Your task to perform on an android device: turn off priority inbox in the gmail app Image 0: 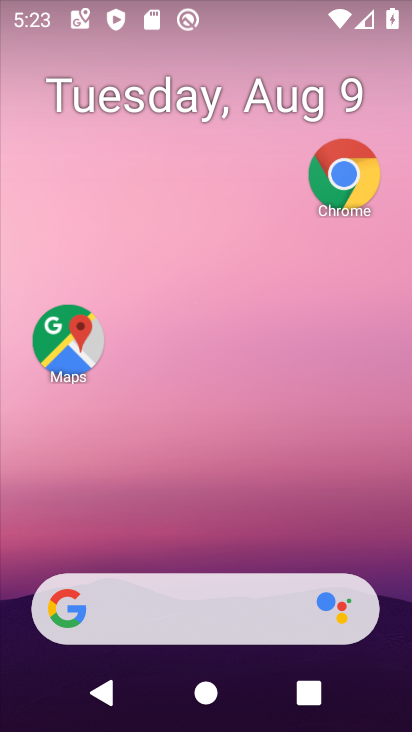
Step 0: drag from (256, 525) to (242, 240)
Your task to perform on an android device: turn off priority inbox in the gmail app Image 1: 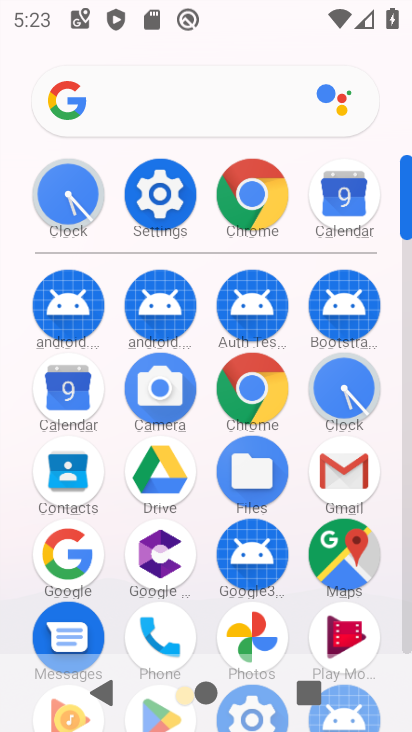
Step 1: drag from (200, 633) to (238, 362)
Your task to perform on an android device: turn off priority inbox in the gmail app Image 2: 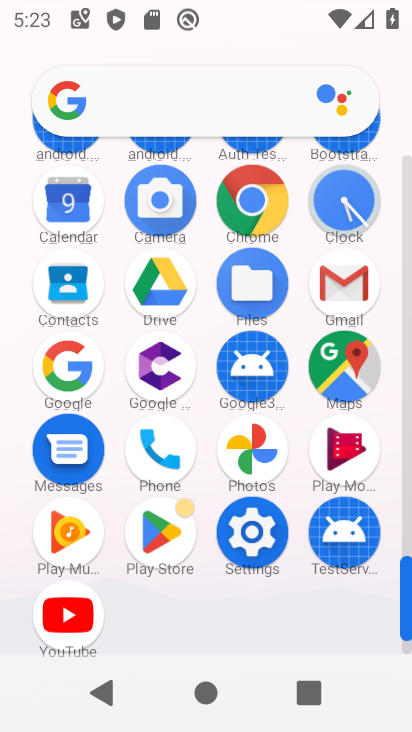
Step 2: click (337, 286)
Your task to perform on an android device: turn off priority inbox in the gmail app Image 3: 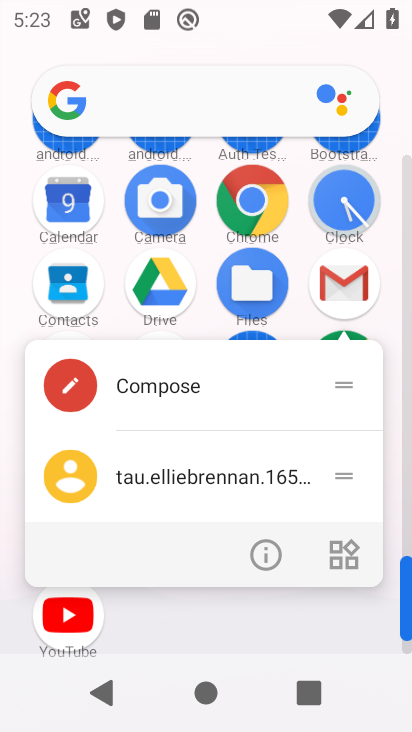
Step 3: click (267, 556)
Your task to perform on an android device: turn off priority inbox in the gmail app Image 4: 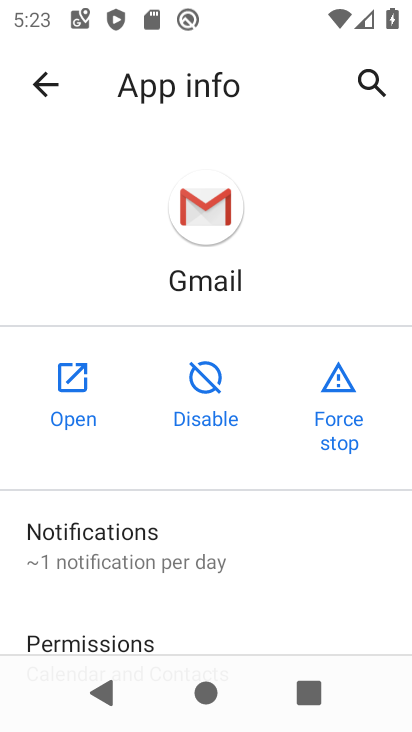
Step 4: click (65, 389)
Your task to perform on an android device: turn off priority inbox in the gmail app Image 5: 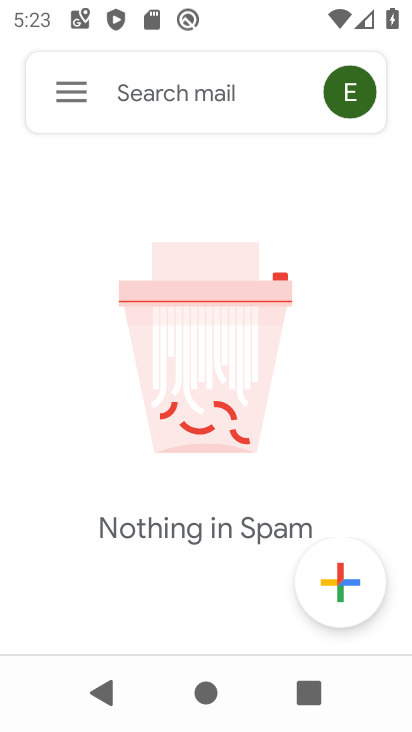
Step 5: drag from (188, 551) to (287, 182)
Your task to perform on an android device: turn off priority inbox in the gmail app Image 6: 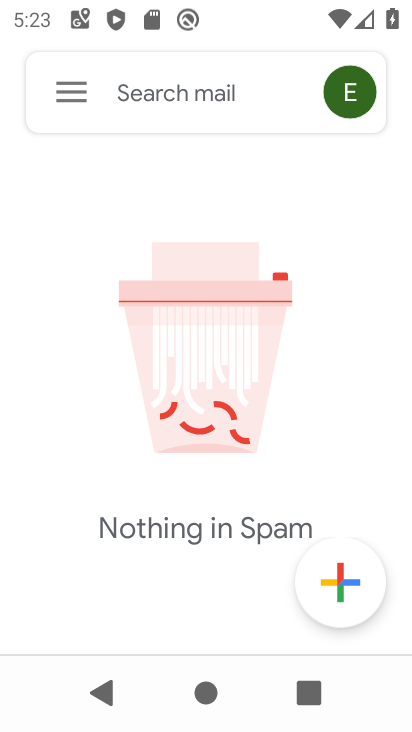
Step 6: drag from (203, 499) to (206, 319)
Your task to perform on an android device: turn off priority inbox in the gmail app Image 7: 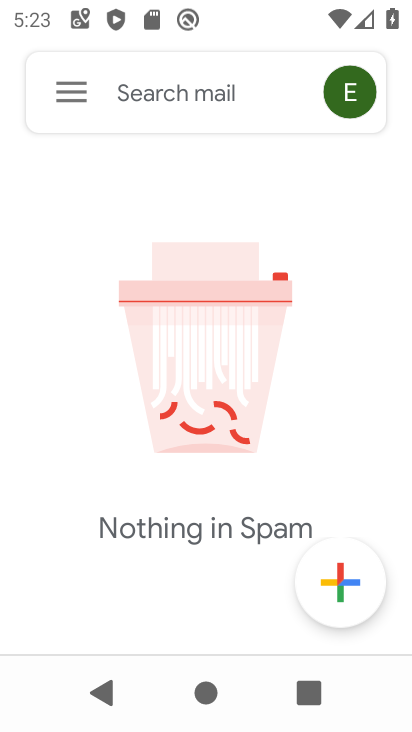
Step 7: drag from (199, 515) to (258, 209)
Your task to perform on an android device: turn off priority inbox in the gmail app Image 8: 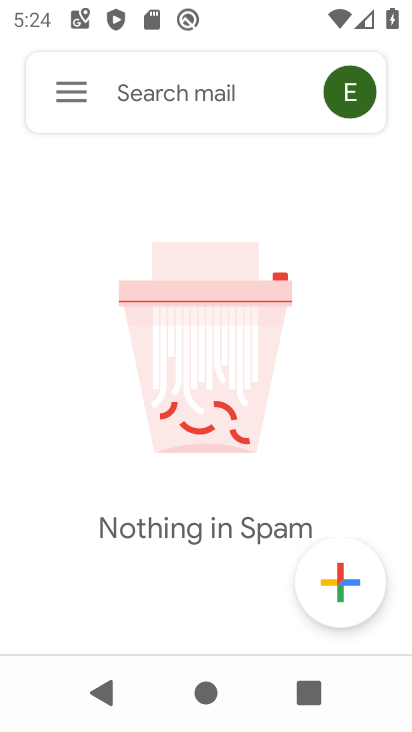
Step 8: drag from (172, 539) to (227, 363)
Your task to perform on an android device: turn off priority inbox in the gmail app Image 9: 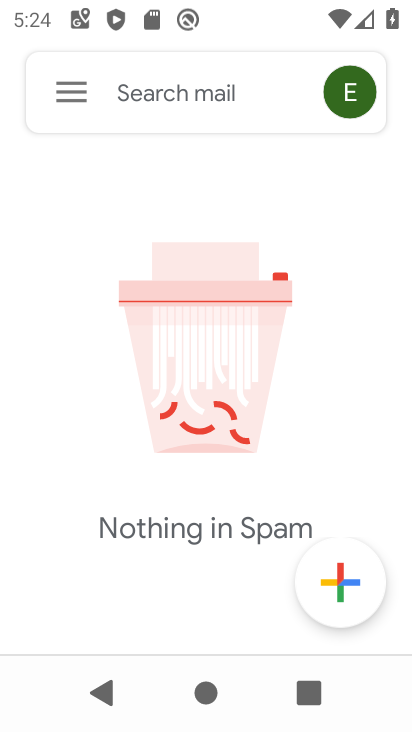
Step 9: drag from (215, 532) to (227, 271)
Your task to perform on an android device: turn off priority inbox in the gmail app Image 10: 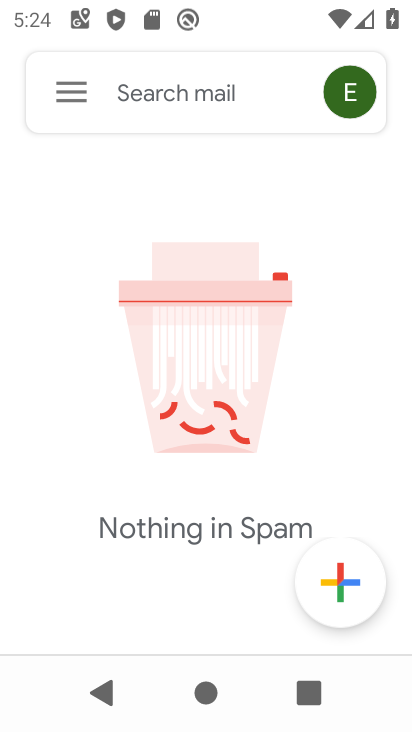
Step 10: click (81, 87)
Your task to perform on an android device: turn off priority inbox in the gmail app Image 11: 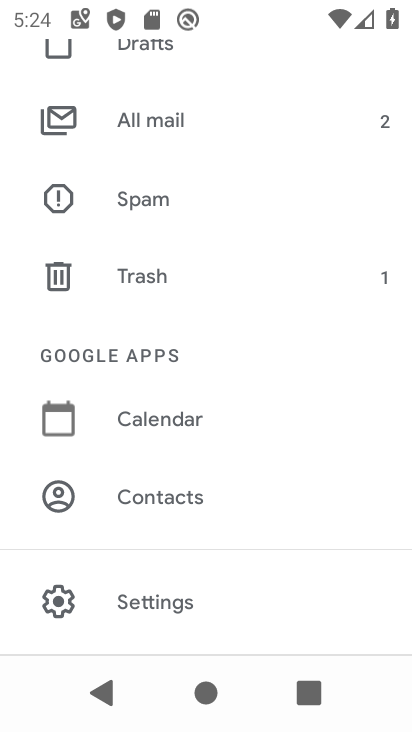
Step 11: click (111, 203)
Your task to perform on an android device: turn off priority inbox in the gmail app Image 12: 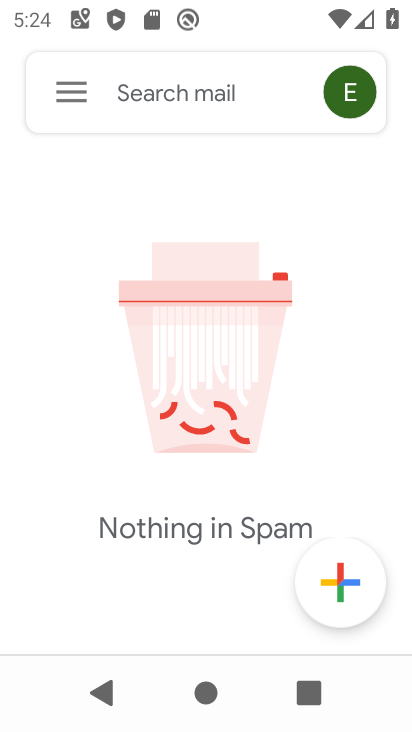
Step 12: drag from (259, 548) to (254, 273)
Your task to perform on an android device: turn off priority inbox in the gmail app Image 13: 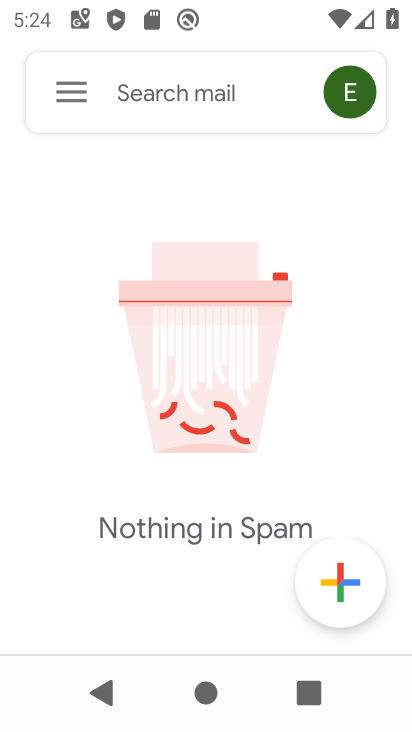
Step 13: drag from (216, 182) to (313, 463)
Your task to perform on an android device: turn off priority inbox in the gmail app Image 14: 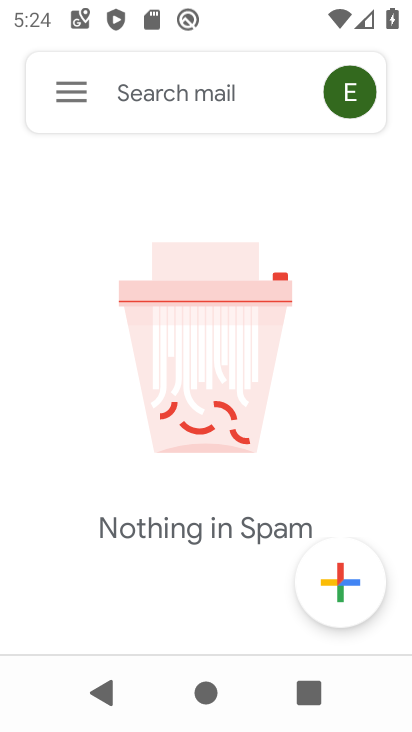
Step 14: drag from (220, 496) to (230, 234)
Your task to perform on an android device: turn off priority inbox in the gmail app Image 15: 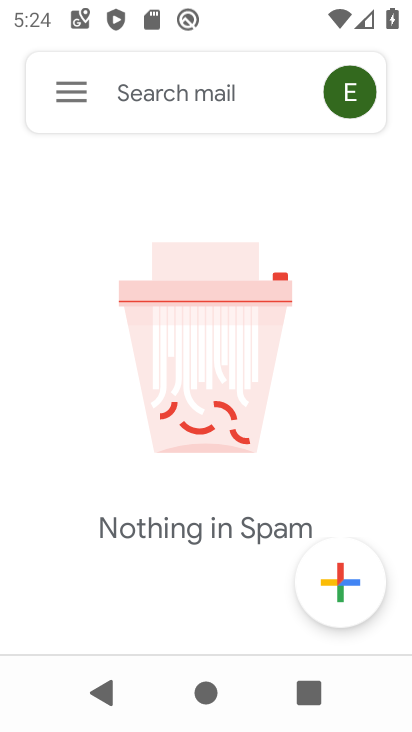
Step 15: drag from (168, 502) to (195, 314)
Your task to perform on an android device: turn off priority inbox in the gmail app Image 16: 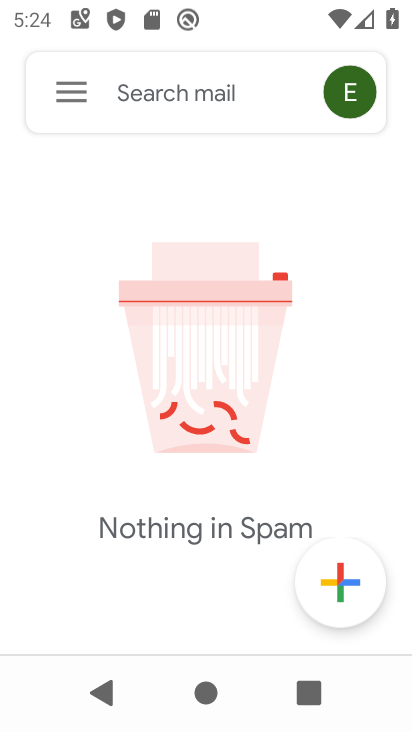
Step 16: drag from (192, 565) to (216, 334)
Your task to perform on an android device: turn off priority inbox in the gmail app Image 17: 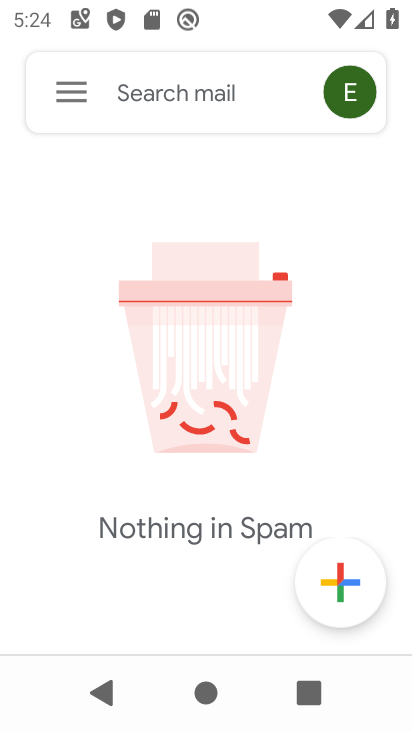
Step 17: drag from (227, 470) to (231, 182)
Your task to perform on an android device: turn off priority inbox in the gmail app Image 18: 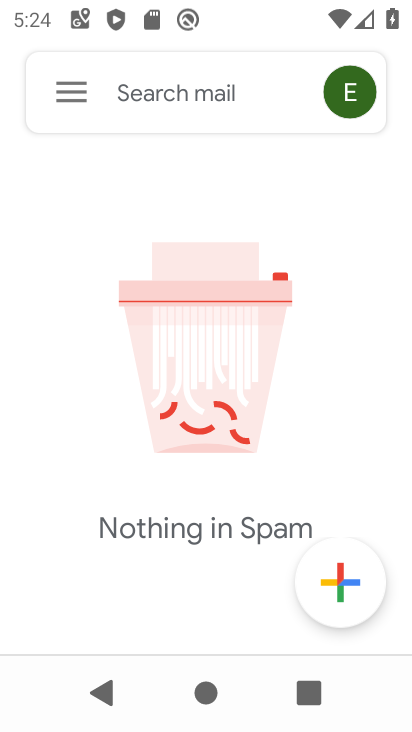
Step 18: drag from (227, 173) to (246, 507)
Your task to perform on an android device: turn off priority inbox in the gmail app Image 19: 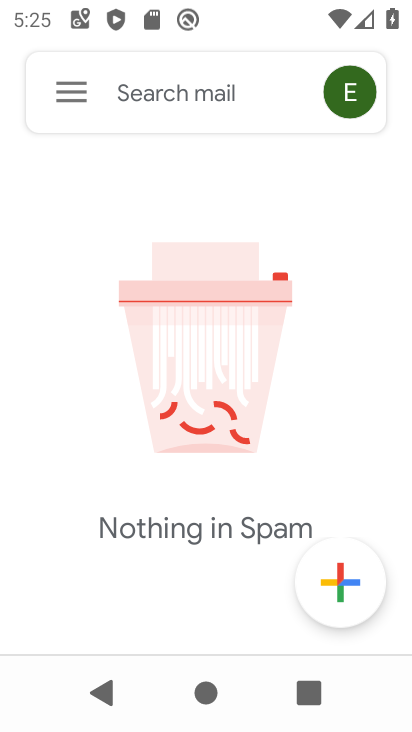
Step 19: drag from (214, 461) to (230, 252)
Your task to perform on an android device: turn off priority inbox in the gmail app Image 20: 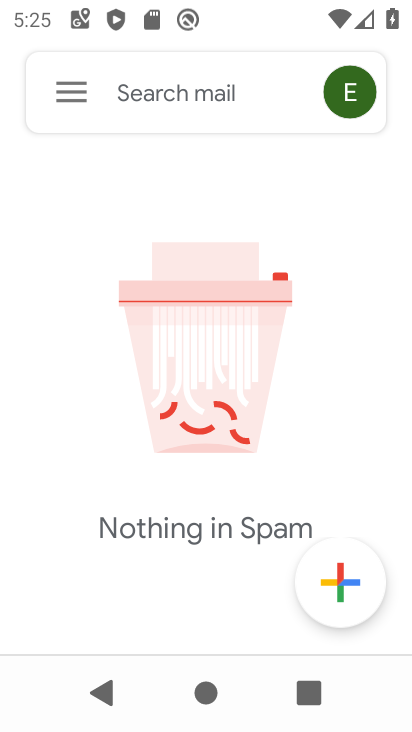
Step 20: drag from (195, 186) to (224, 477)
Your task to perform on an android device: turn off priority inbox in the gmail app Image 21: 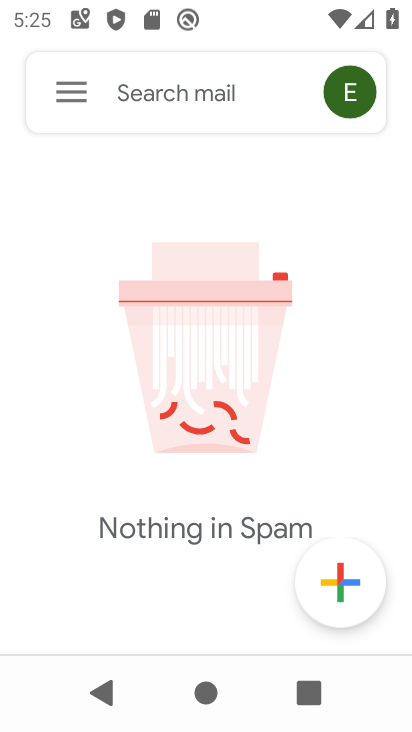
Step 21: drag from (198, 196) to (227, 528)
Your task to perform on an android device: turn off priority inbox in the gmail app Image 22: 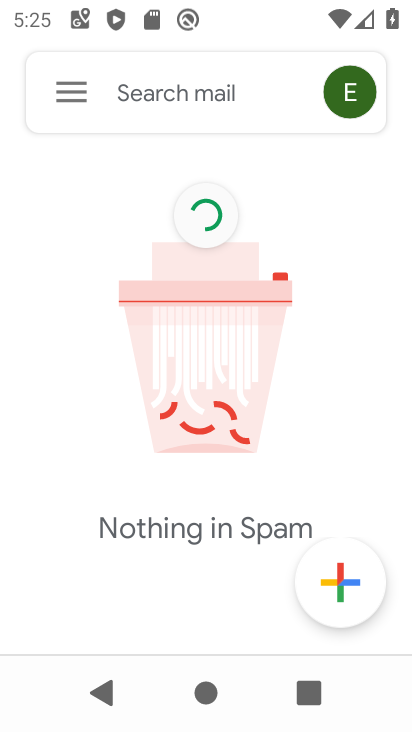
Step 22: drag from (211, 478) to (230, 238)
Your task to perform on an android device: turn off priority inbox in the gmail app Image 23: 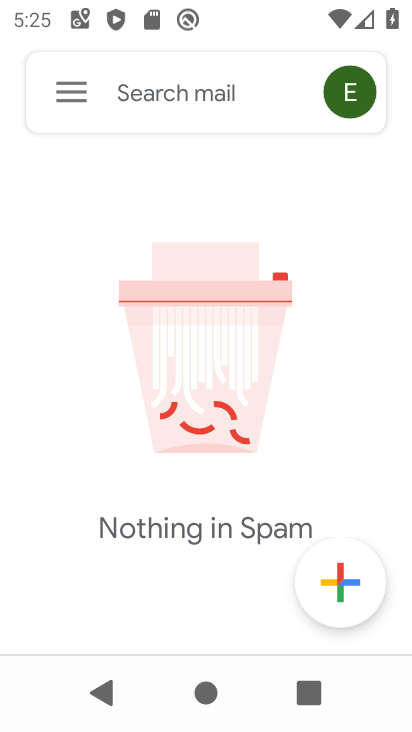
Step 23: drag from (222, 197) to (249, 570)
Your task to perform on an android device: turn off priority inbox in the gmail app Image 24: 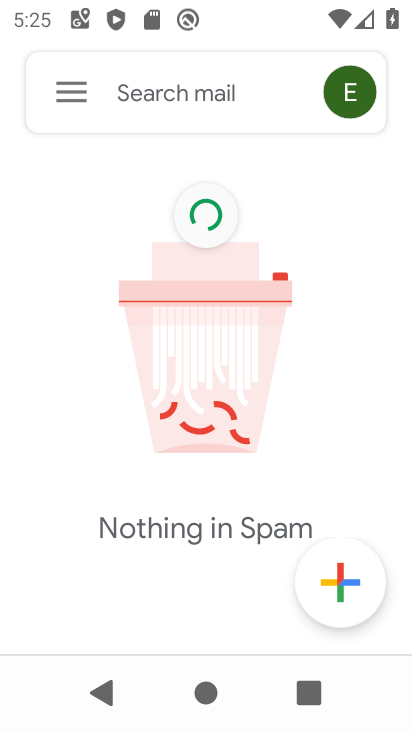
Step 24: drag from (231, 535) to (267, 178)
Your task to perform on an android device: turn off priority inbox in the gmail app Image 25: 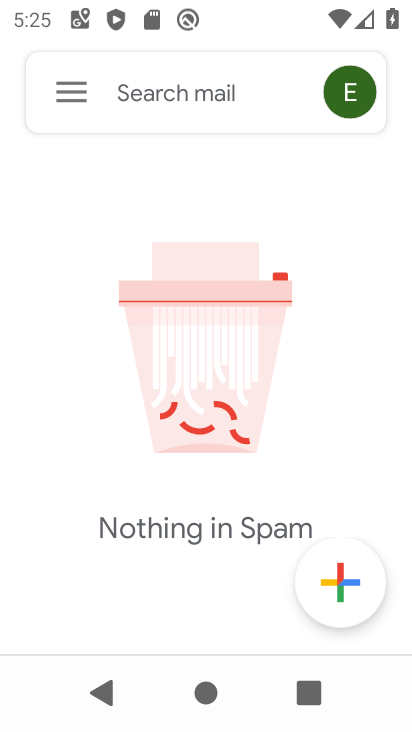
Step 25: click (58, 91)
Your task to perform on an android device: turn off priority inbox in the gmail app Image 26: 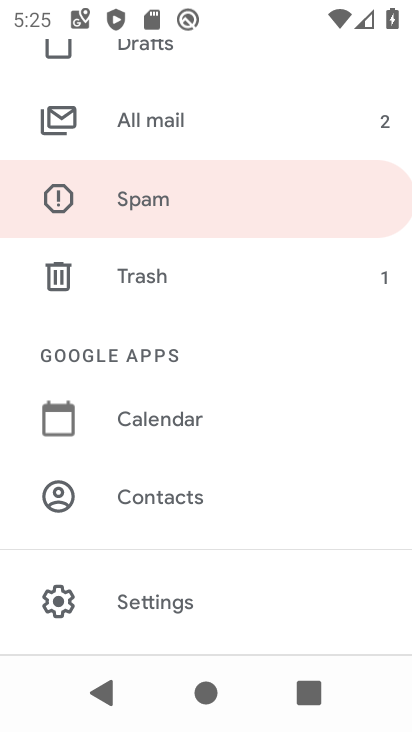
Step 26: drag from (171, 571) to (221, 129)
Your task to perform on an android device: turn off priority inbox in the gmail app Image 27: 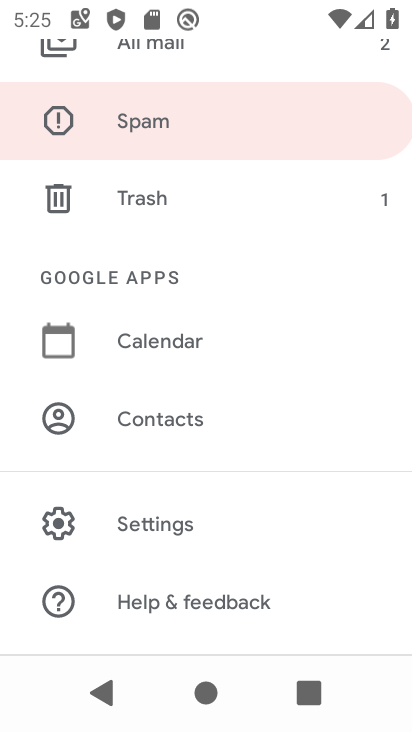
Step 27: click (203, 519)
Your task to perform on an android device: turn off priority inbox in the gmail app Image 28: 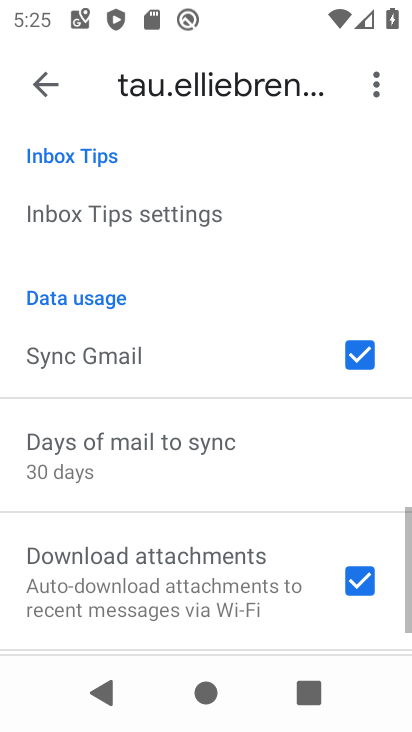
Step 28: drag from (230, 534) to (249, 216)
Your task to perform on an android device: turn off priority inbox in the gmail app Image 29: 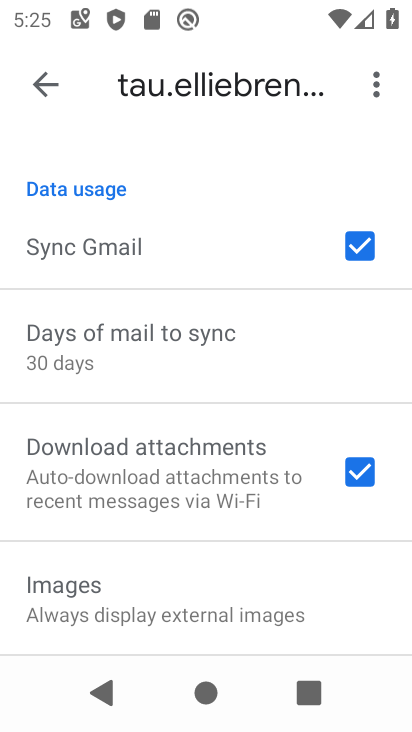
Step 29: drag from (210, 506) to (217, 252)
Your task to perform on an android device: turn off priority inbox in the gmail app Image 30: 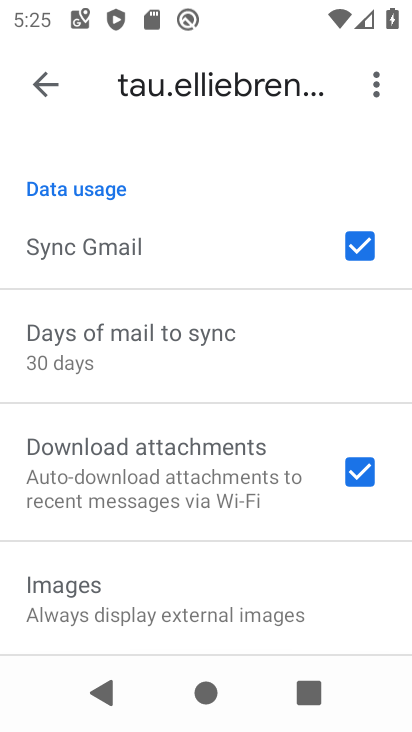
Step 30: drag from (222, 216) to (254, 538)
Your task to perform on an android device: turn off priority inbox in the gmail app Image 31: 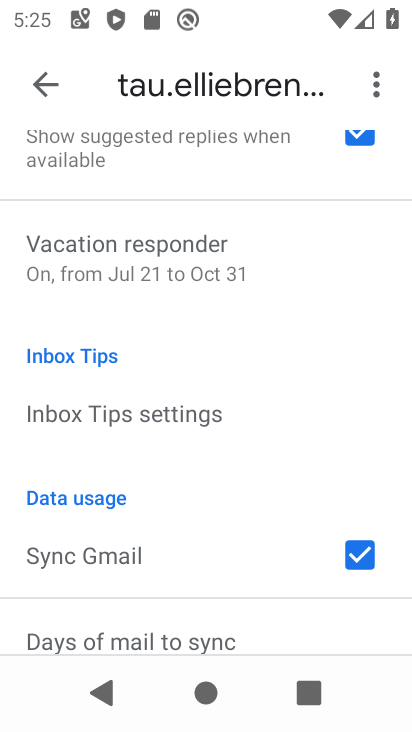
Step 31: drag from (224, 569) to (251, 201)
Your task to perform on an android device: turn off priority inbox in the gmail app Image 32: 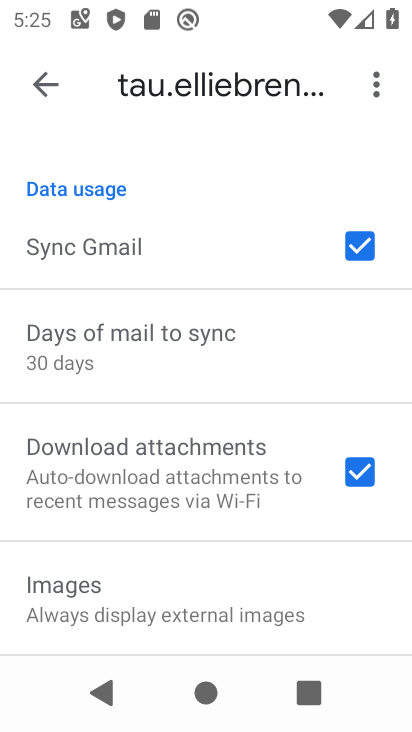
Step 32: drag from (214, 484) to (251, 218)
Your task to perform on an android device: turn off priority inbox in the gmail app Image 33: 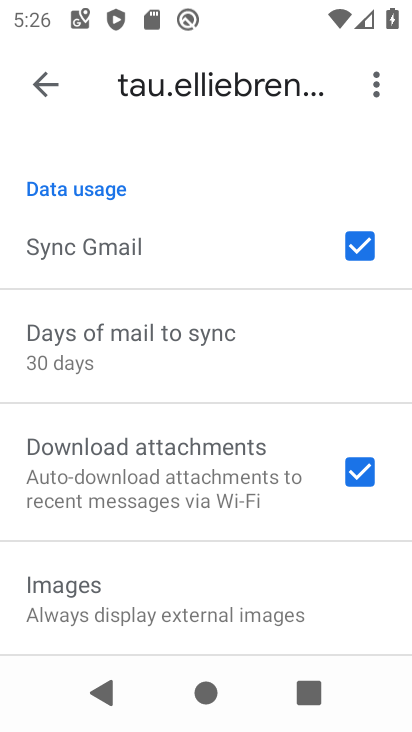
Step 33: drag from (193, 544) to (214, 399)
Your task to perform on an android device: turn off priority inbox in the gmail app Image 34: 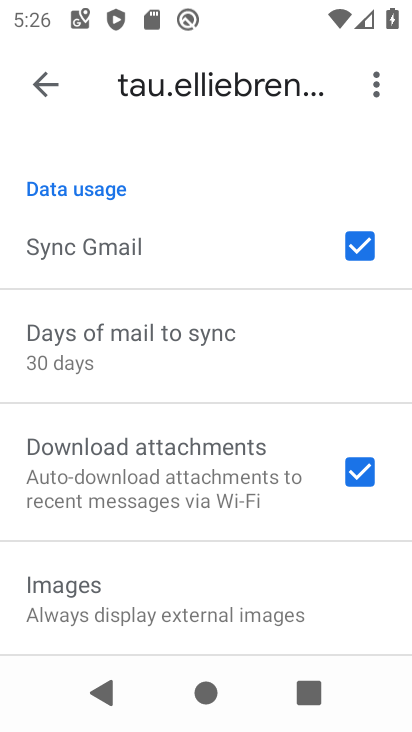
Step 34: drag from (172, 627) to (292, 328)
Your task to perform on an android device: turn off priority inbox in the gmail app Image 35: 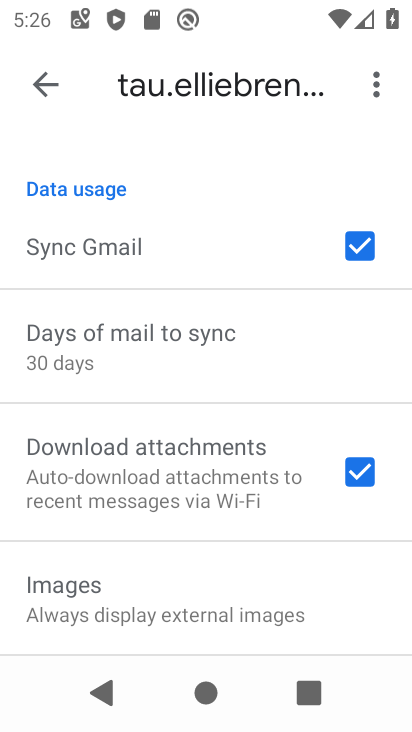
Step 35: drag from (257, 581) to (257, 288)
Your task to perform on an android device: turn off priority inbox in the gmail app Image 36: 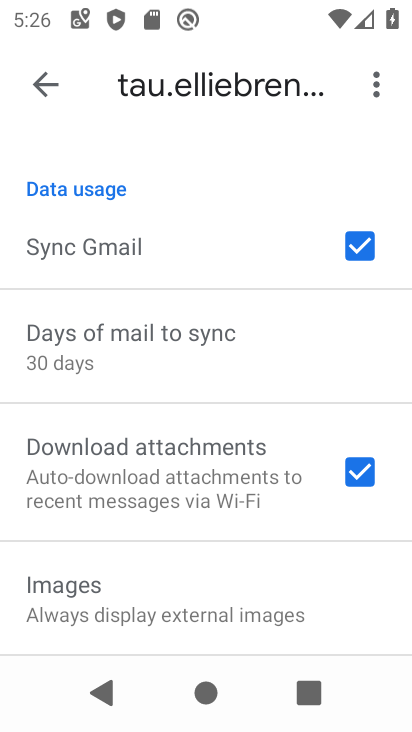
Step 36: drag from (222, 516) to (217, 232)
Your task to perform on an android device: turn off priority inbox in the gmail app Image 37: 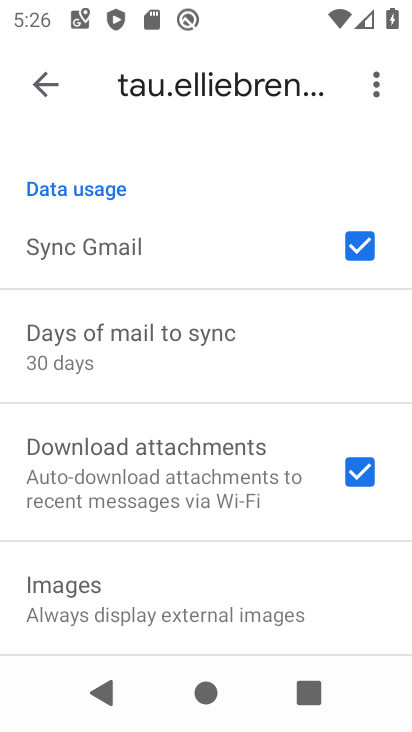
Step 37: drag from (234, 502) to (245, 289)
Your task to perform on an android device: turn off priority inbox in the gmail app Image 38: 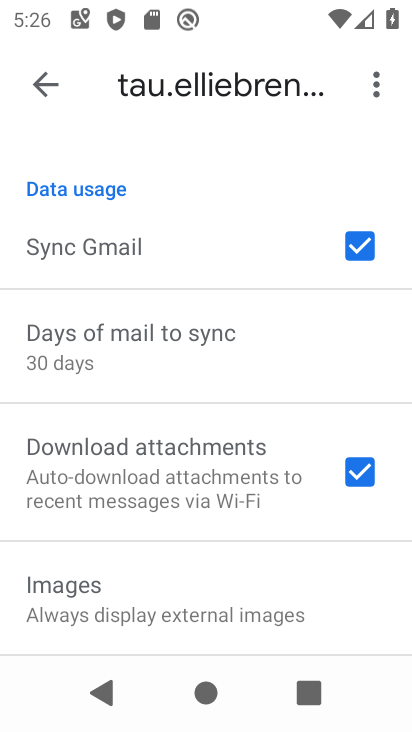
Step 38: drag from (220, 523) to (233, 369)
Your task to perform on an android device: turn off priority inbox in the gmail app Image 39: 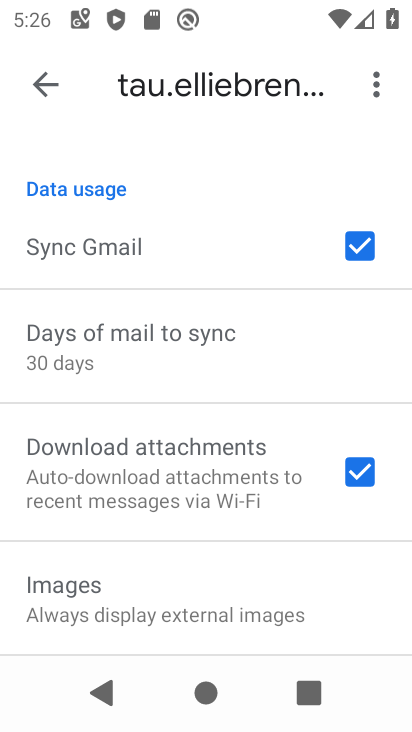
Step 39: drag from (249, 578) to (283, 385)
Your task to perform on an android device: turn off priority inbox in the gmail app Image 40: 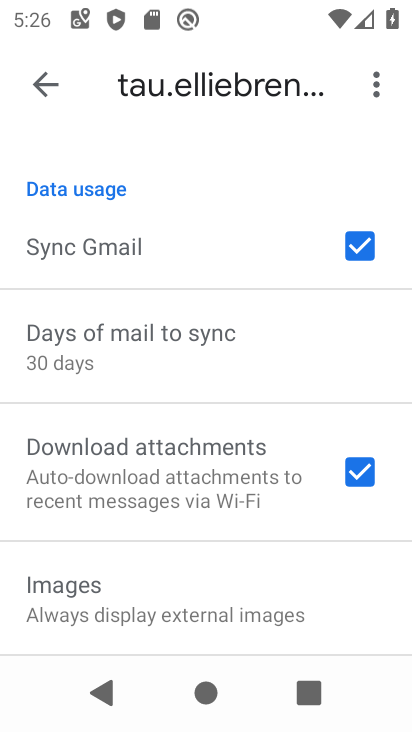
Step 40: drag from (275, 593) to (265, 441)
Your task to perform on an android device: turn off priority inbox in the gmail app Image 41: 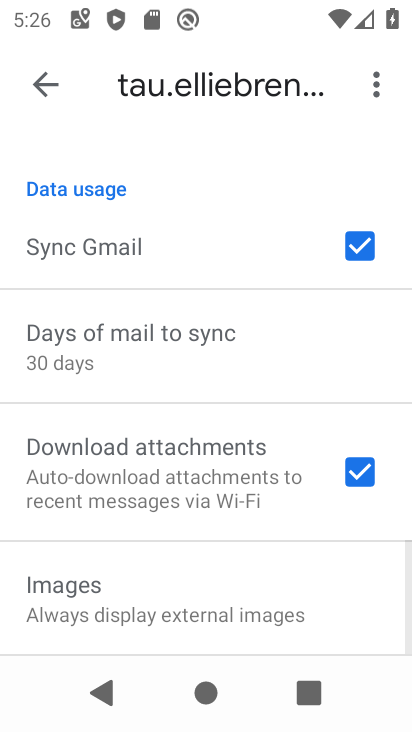
Step 41: drag from (284, 593) to (272, 438)
Your task to perform on an android device: turn off priority inbox in the gmail app Image 42: 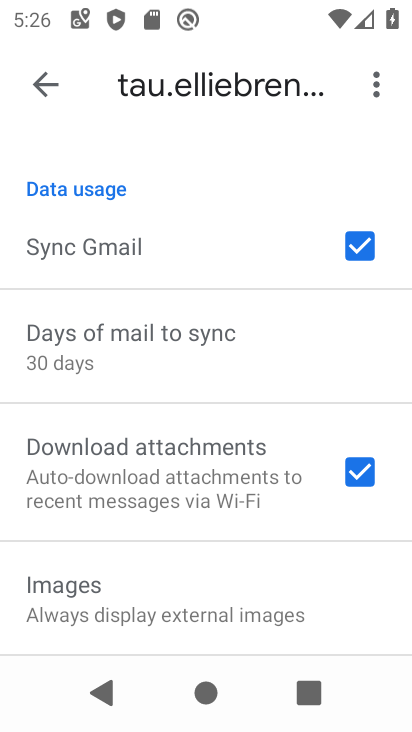
Step 42: drag from (214, 495) to (252, 381)
Your task to perform on an android device: turn off priority inbox in the gmail app Image 43: 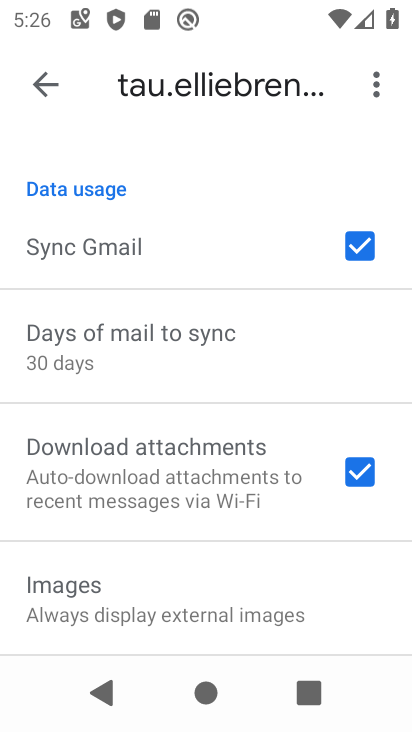
Step 43: drag from (210, 568) to (223, 385)
Your task to perform on an android device: turn off priority inbox in the gmail app Image 44: 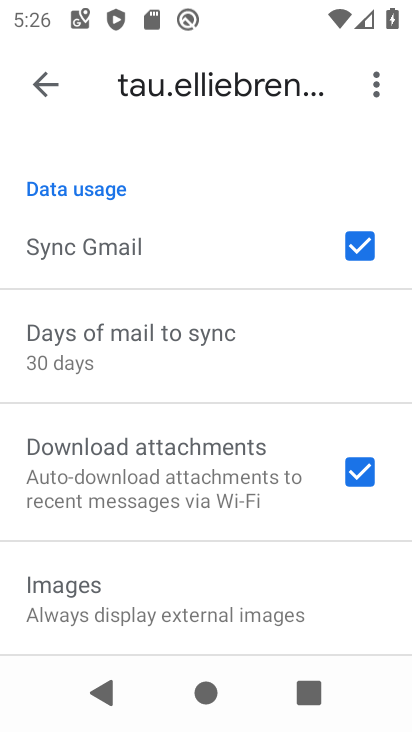
Step 44: drag from (201, 534) to (288, 320)
Your task to perform on an android device: turn off priority inbox in the gmail app Image 45: 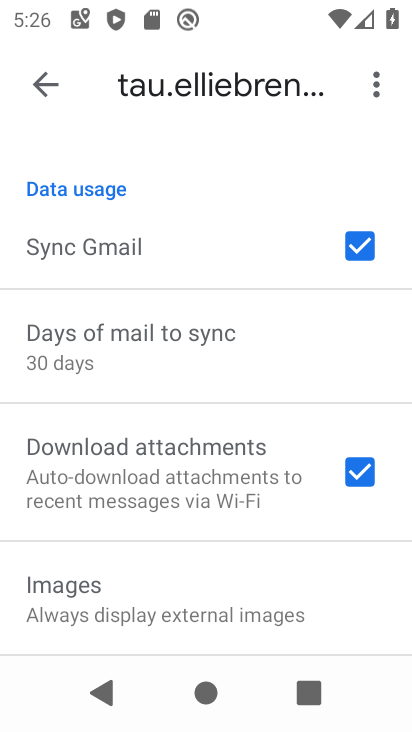
Step 45: drag from (174, 381) to (203, 559)
Your task to perform on an android device: turn off priority inbox in the gmail app Image 46: 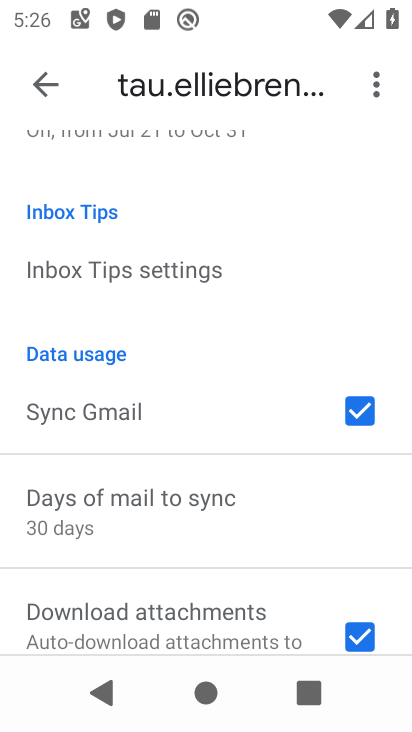
Step 46: drag from (272, 596) to (278, 471)
Your task to perform on an android device: turn off priority inbox in the gmail app Image 47: 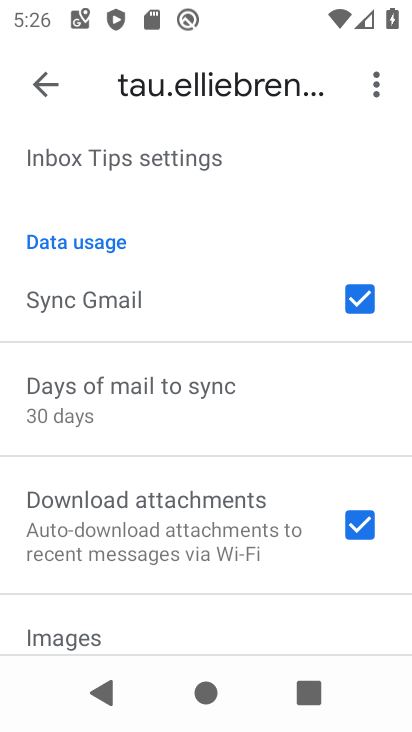
Step 47: drag from (224, 410) to (302, 226)
Your task to perform on an android device: turn off priority inbox in the gmail app Image 48: 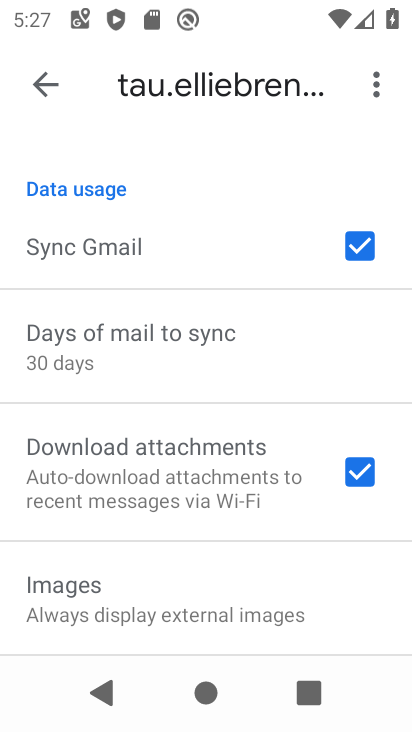
Step 48: drag from (206, 588) to (206, 271)
Your task to perform on an android device: turn off priority inbox in the gmail app Image 49: 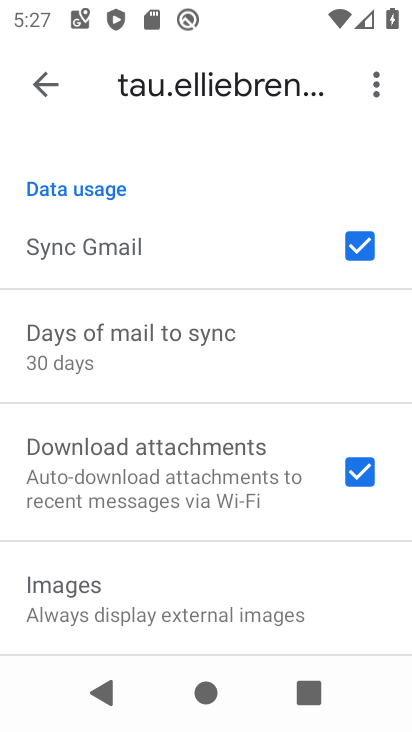
Step 49: drag from (210, 331) to (216, 290)
Your task to perform on an android device: turn off priority inbox in the gmail app Image 50: 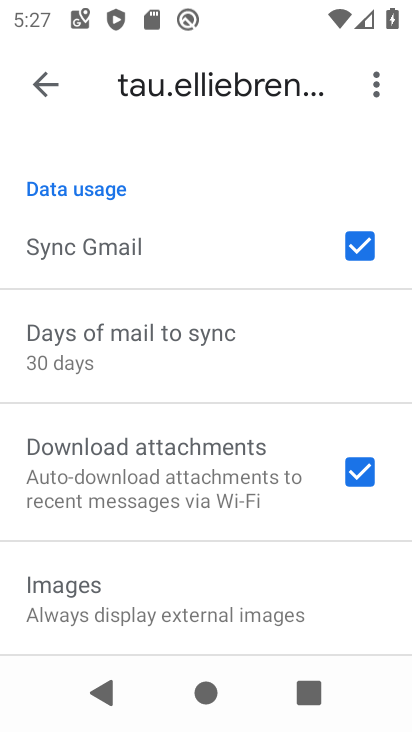
Step 50: drag from (236, 345) to (212, 216)
Your task to perform on an android device: turn off priority inbox in the gmail app Image 51: 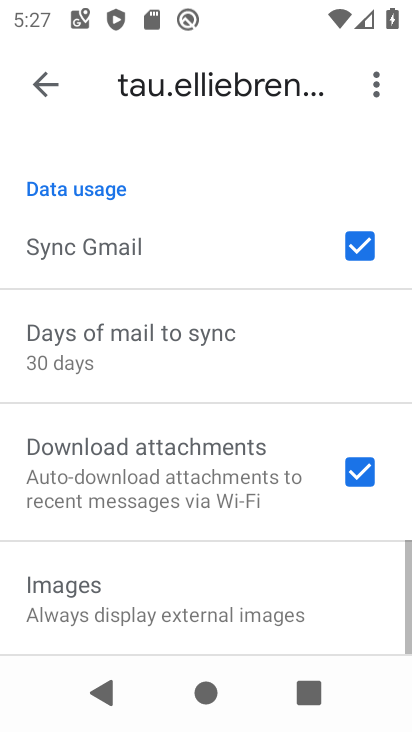
Step 51: drag from (224, 248) to (243, 455)
Your task to perform on an android device: turn off priority inbox in the gmail app Image 52: 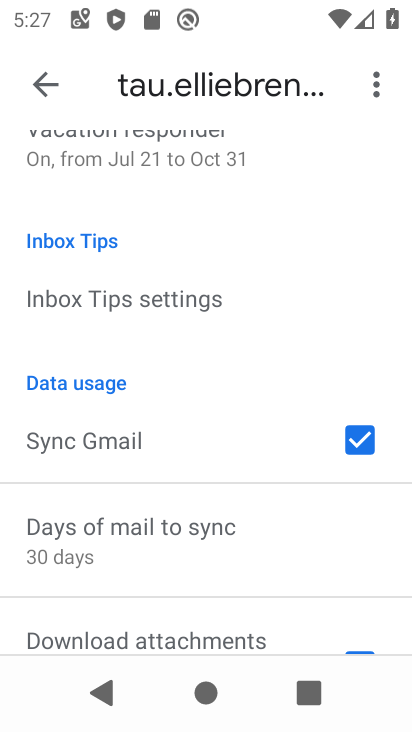
Step 52: drag from (206, 535) to (239, 305)
Your task to perform on an android device: turn off priority inbox in the gmail app Image 53: 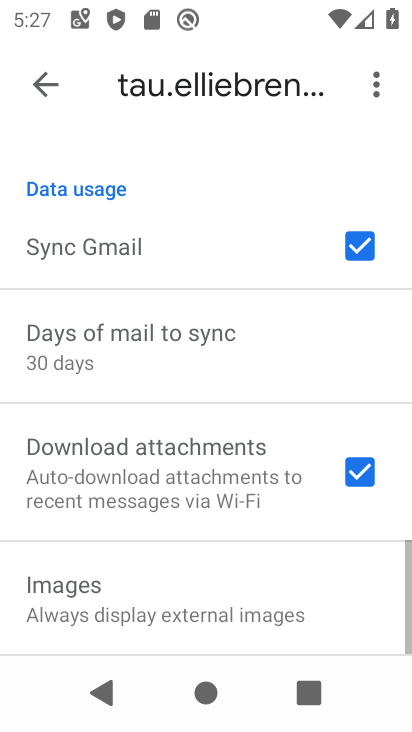
Step 53: drag from (212, 326) to (241, 431)
Your task to perform on an android device: turn off priority inbox in the gmail app Image 54: 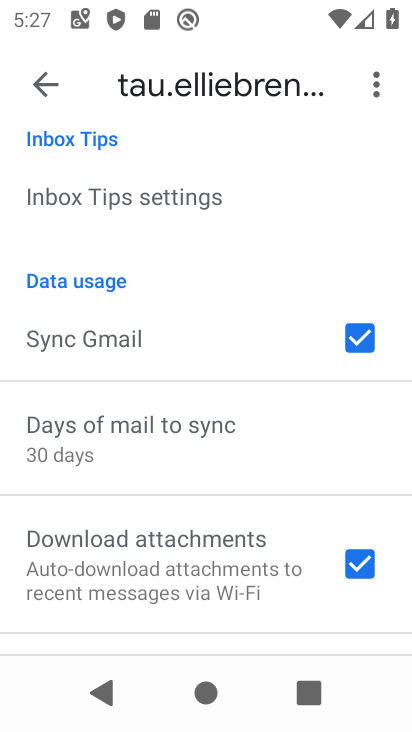
Step 54: drag from (232, 397) to (245, 89)
Your task to perform on an android device: turn off priority inbox in the gmail app Image 55: 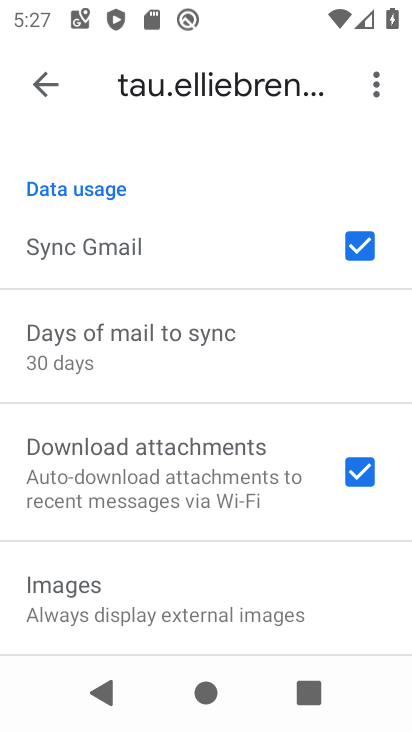
Step 55: drag from (221, 341) to (229, 484)
Your task to perform on an android device: turn off priority inbox in the gmail app Image 56: 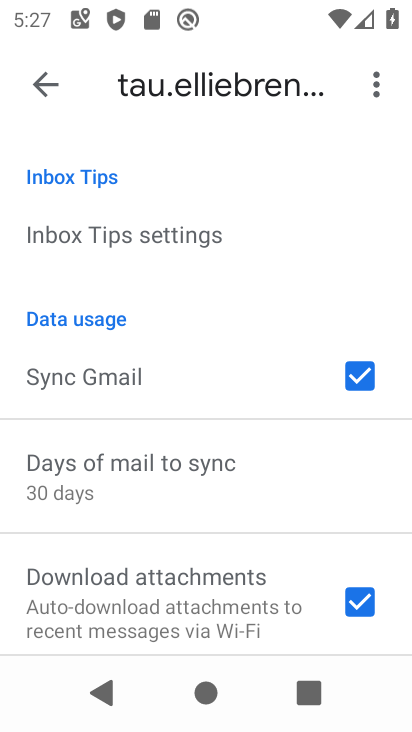
Step 56: drag from (209, 473) to (212, 169)
Your task to perform on an android device: turn off priority inbox in the gmail app Image 57: 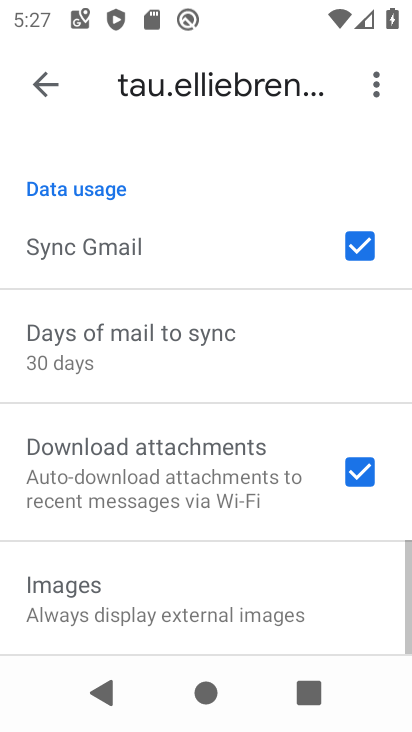
Step 57: drag from (211, 253) to (227, 378)
Your task to perform on an android device: turn off priority inbox in the gmail app Image 58: 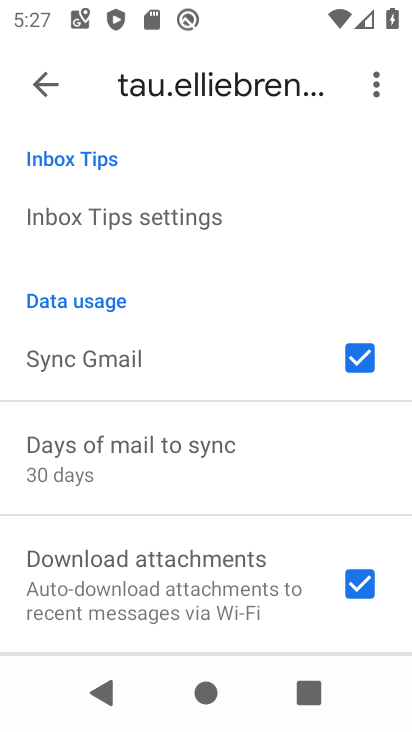
Step 58: drag from (163, 213) to (280, 493)
Your task to perform on an android device: turn off priority inbox in the gmail app Image 59: 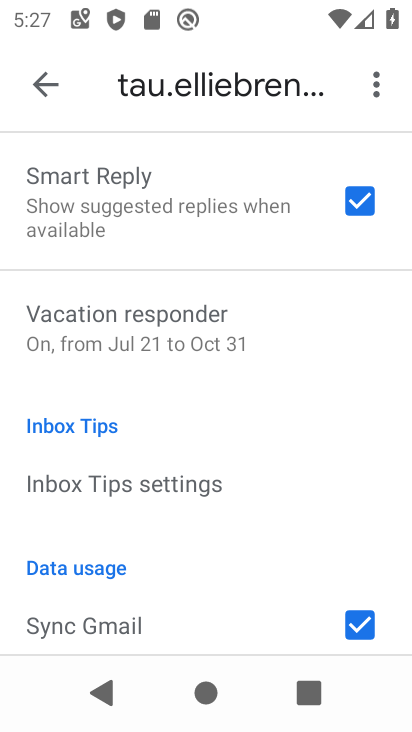
Step 59: drag from (139, 471) to (205, 222)
Your task to perform on an android device: turn off priority inbox in the gmail app Image 60: 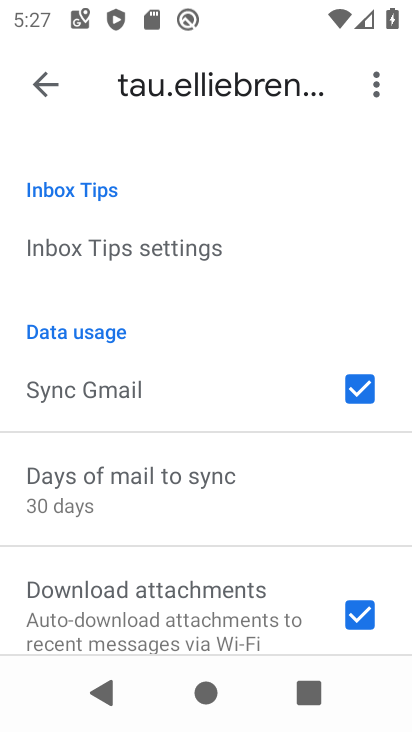
Step 60: drag from (147, 257) to (154, 167)
Your task to perform on an android device: turn off priority inbox in the gmail app Image 61: 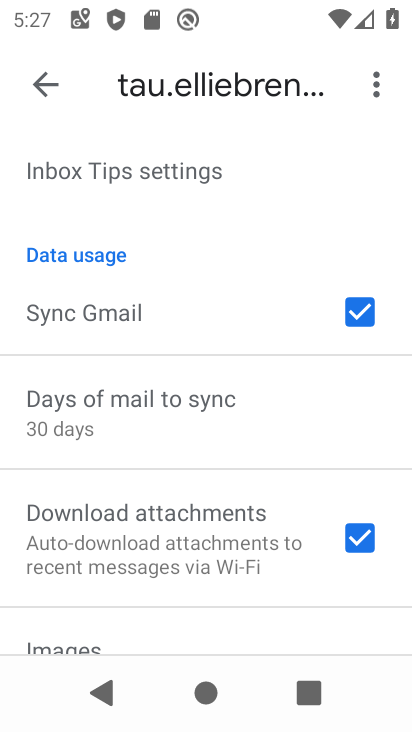
Step 61: drag from (171, 526) to (213, 267)
Your task to perform on an android device: turn off priority inbox in the gmail app Image 62: 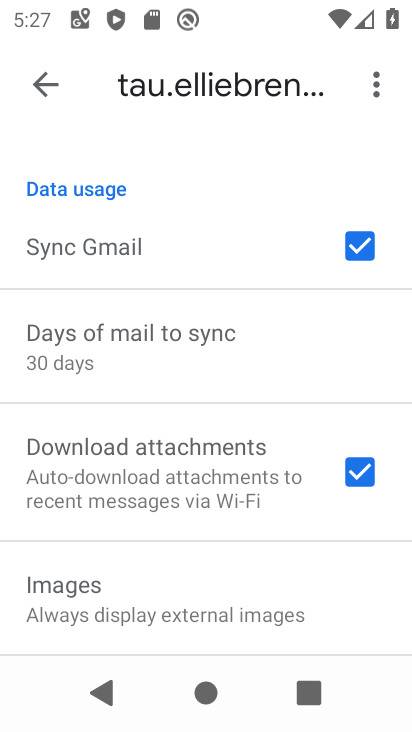
Step 62: drag from (157, 575) to (258, 338)
Your task to perform on an android device: turn off priority inbox in the gmail app Image 63: 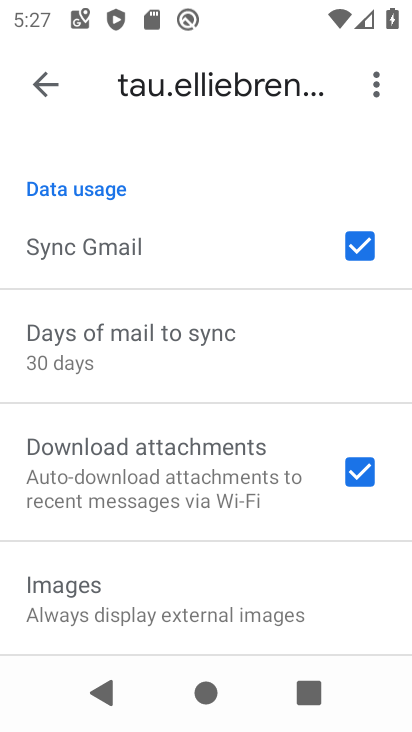
Step 63: drag from (213, 592) to (203, 385)
Your task to perform on an android device: turn off priority inbox in the gmail app Image 64: 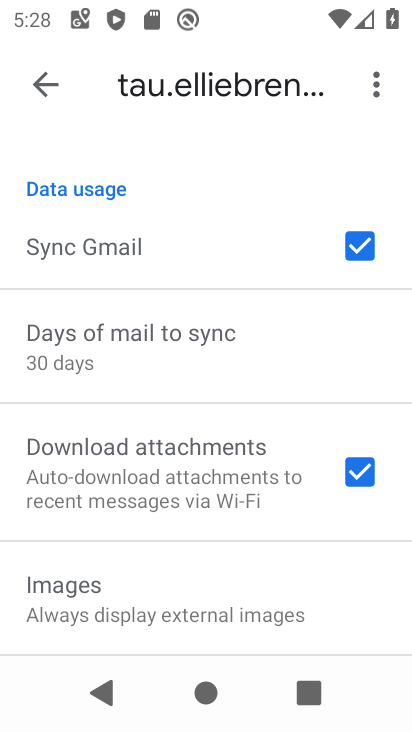
Step 64: drag from (191, 576) to (249, 359)
Your task to perform on an android device: turn off priority inbox in the gmail app Image 65: 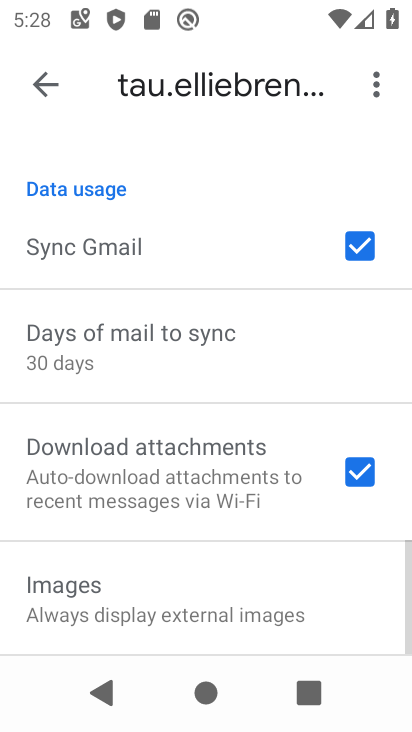
Step 65: drag from (207, 585) to (239, 360)
Your task to perform on an android device: turn off priority inbox in the gmail app Image 66: 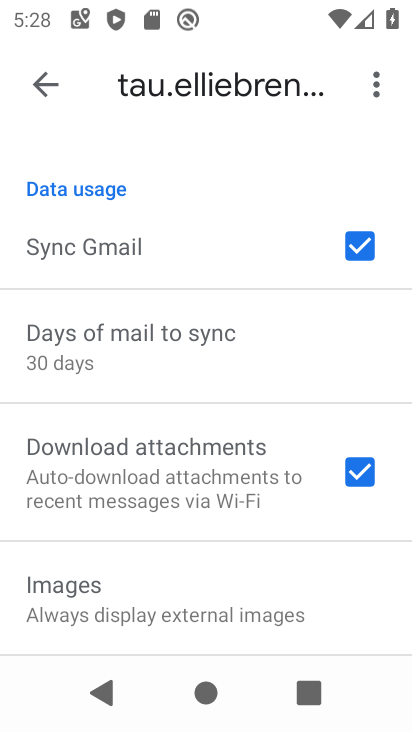
Step 66: drag from (208, 583) to (204, 470)
Your task to perform on an android device: turn off priority inbox in the gmail app Image 67: 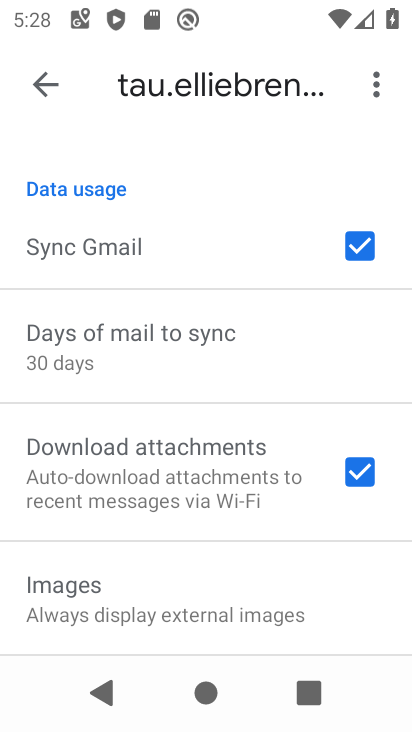
Step 67: drag from (173, 191) to (229, 708)
Your task to perform on an android device: turn off priority inbox in the gmail app Image 68: 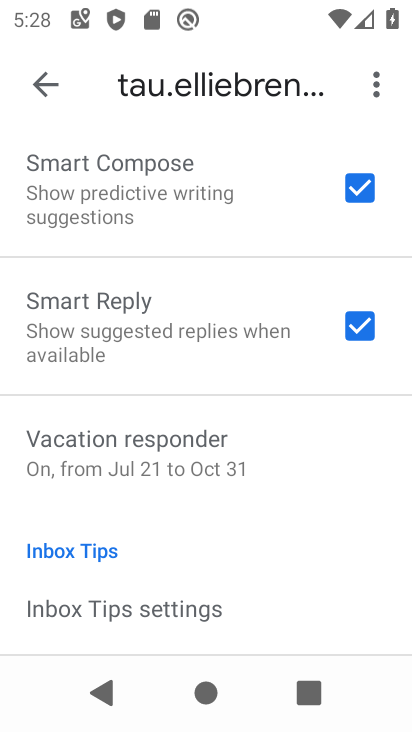
Step 68: drag from (205, 209) to (263, 662)
Your task to perform on an android device: turn off priority inbox in the gmail app Image 69: 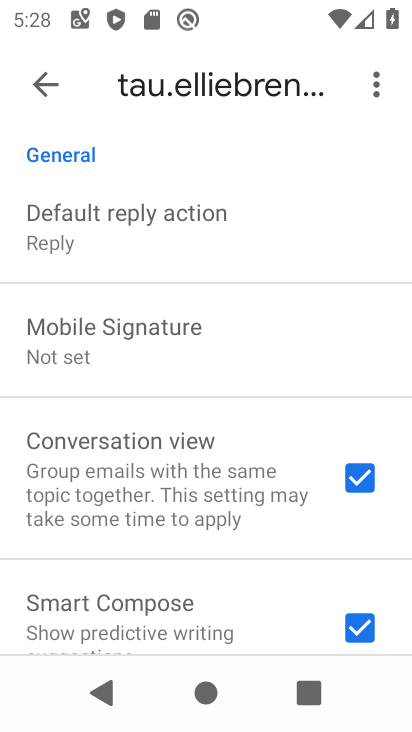
Step 69: drag from (119, 283) to (274, 719)
Your task to perform on an android device: turn off priority inbox in the gmail app Image 70: 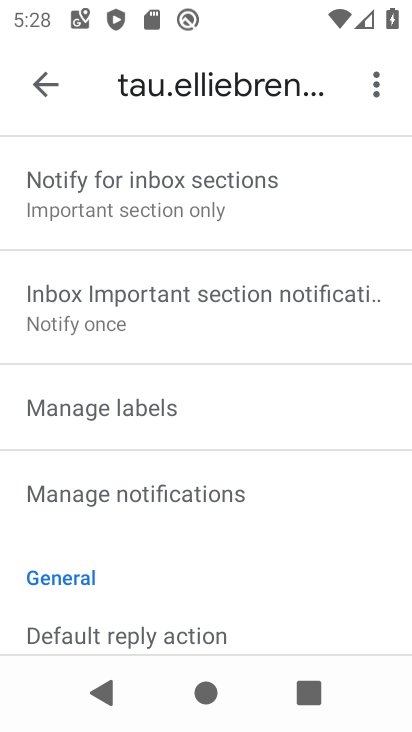
Step 70: drag from (142, 270) to (234, 633)
Your task to perform on an android device: turn off priority inbox in the gmail app Image 71: 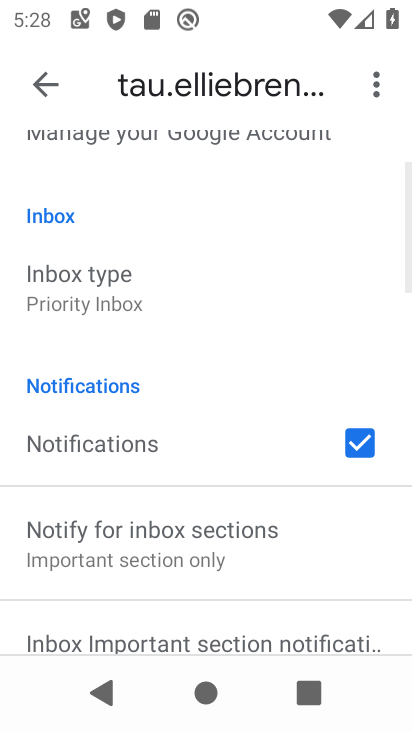
Step 71: drag from (229, 336) to (376, 639)
Your task to perform on an android device: turn off priority inbox in the gmail app Image 72: 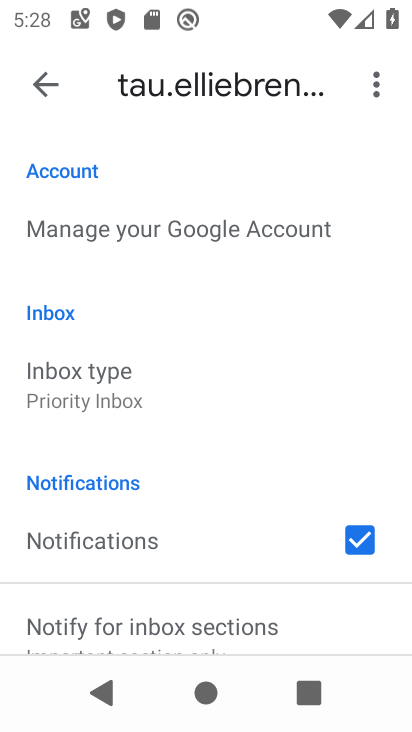
Step 72: click (124, 396)
Your task to perform on an android device: turn off priority inbox in the gmail app Image 73: 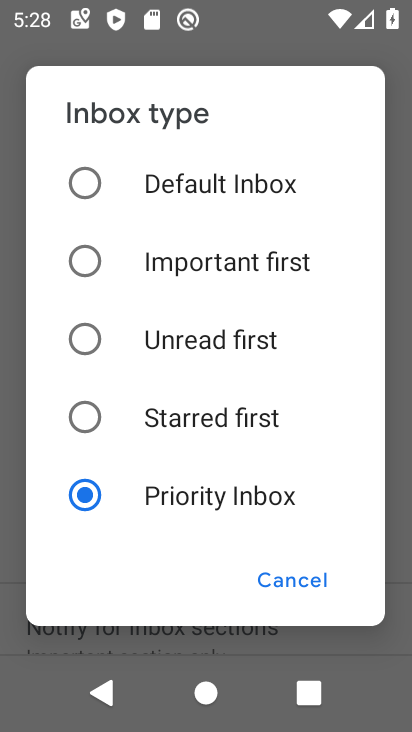
Step 73: click (129, 188)
Your task to perform on an android device: turn off priority inbox in the gmail app Image 74: 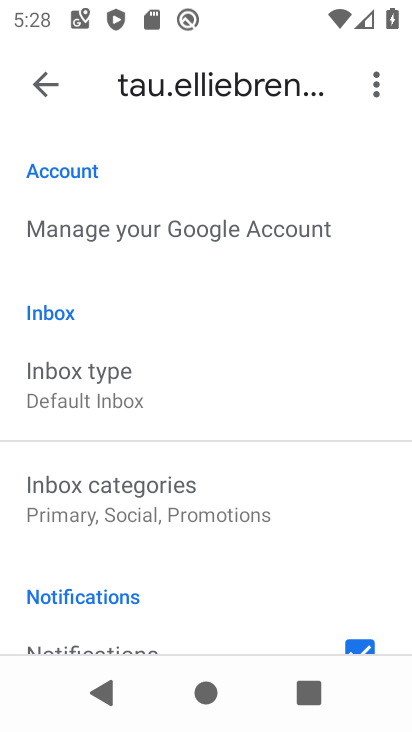
Step 74: drag from (173, 601) to (213, 302)
Your task to perform on an android device: turn off priority inbox in the gmail app Image 75: 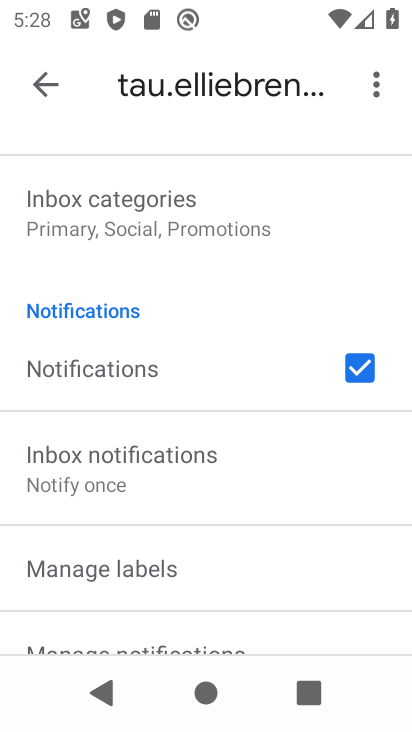
Step 75: drag from (177, 325) to (338, 715)
Your task to perform on an android device: turn off priority inbox in the gmail app Image 76: 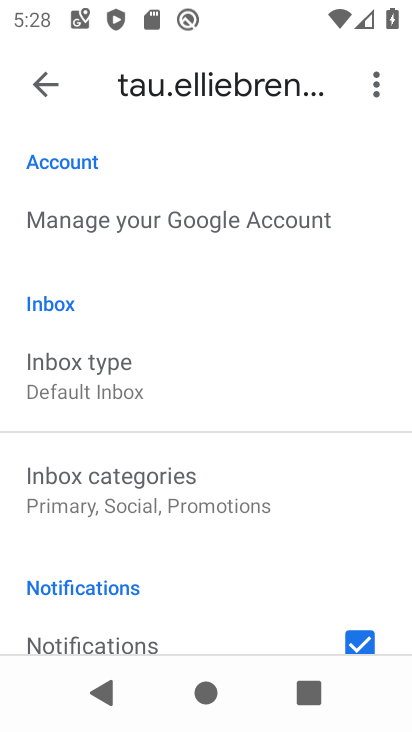
Step 76: click (141, 368)
Your task to perform on an android device: turn off priority inbox in the gmail app Image 77: 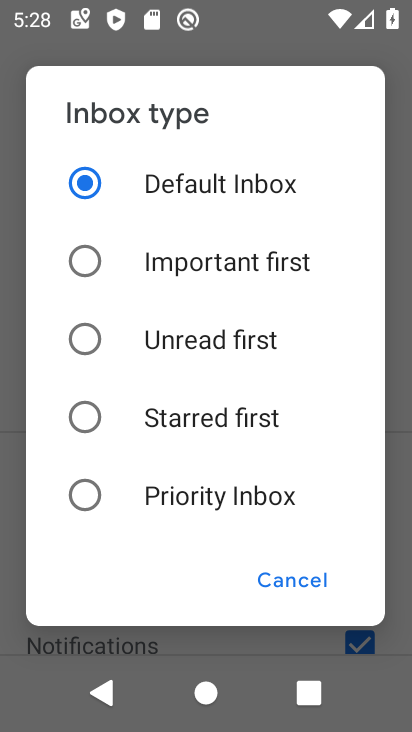
Step 77: click (182, 180)
Your task to perform on an android device: turn off priority inbox in the gmail app Image 78: 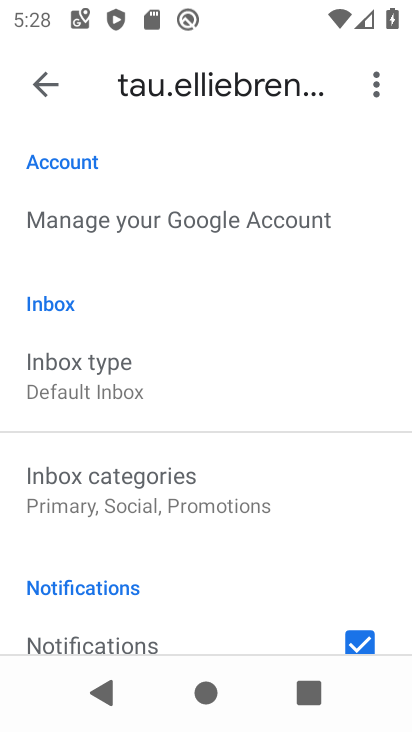
Step 78: task complete